Your task to perform on an android device: What's the weather? Image 0: 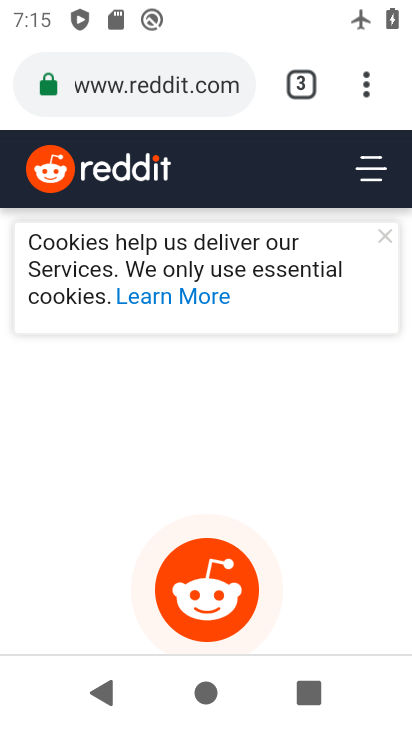
Step 0: press home button
Your task to perform on an android device: What's the weather? Image 1: 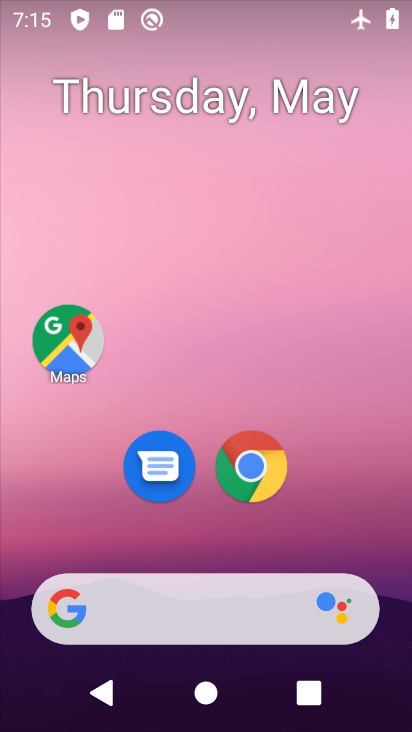
Step 1: click (167, 611)
Your task to perform on an android device: What's the weather? Image 2: 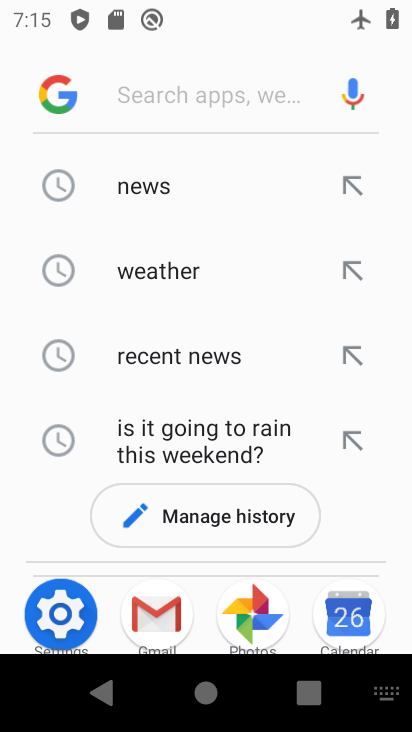
Step 2: click (160, 272)
Your task to perform on an android device: What's the weather? Image 3: 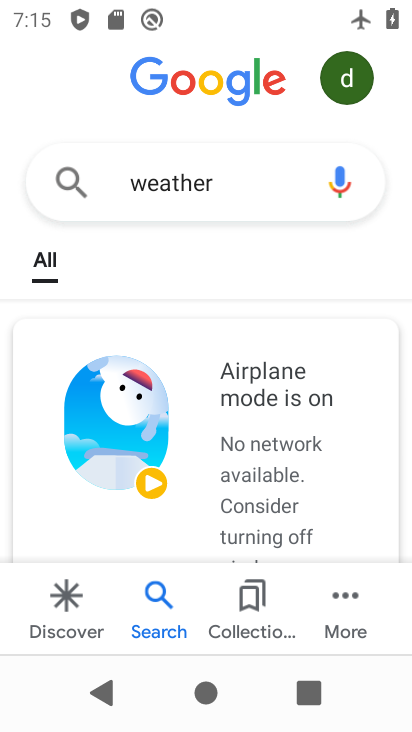
Step 3: task complete